Your task to perform on an android device: turn off wifi Image 0: 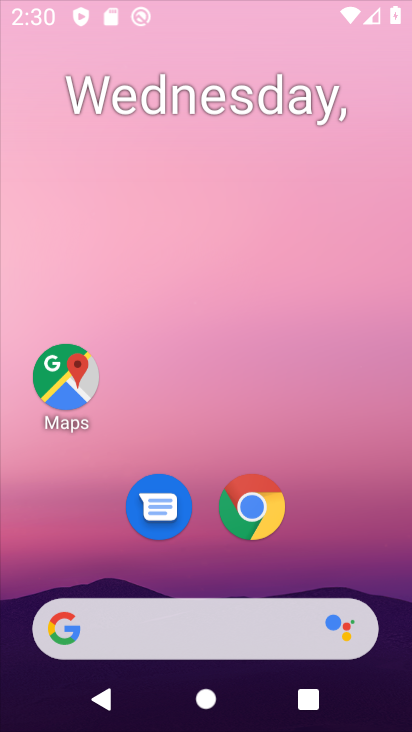
Step 0: drag from (305, 378) to (284, 70)
Your task to perform on an android device: turn off wifi Image 1: 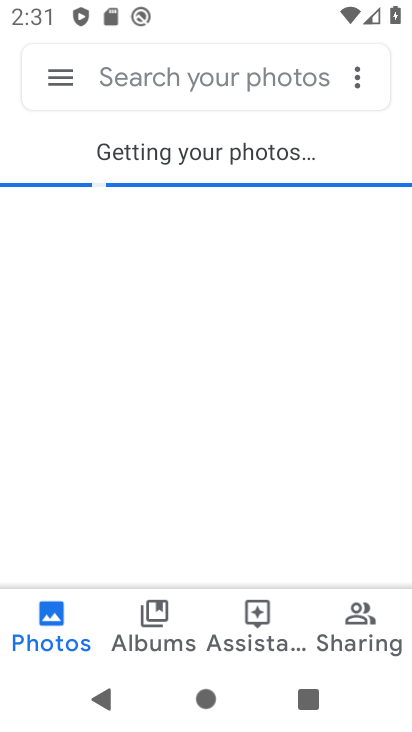
Step 1: press home button
Your task to perform on an android device: turn off wifi Image 2: 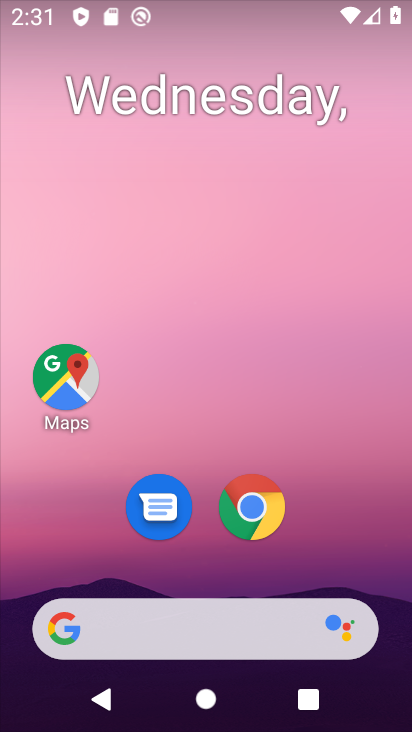
Step 2: drag from (196, 472) to (193, 89)
Your task to perform on an android device: turn off wifi Image 3: 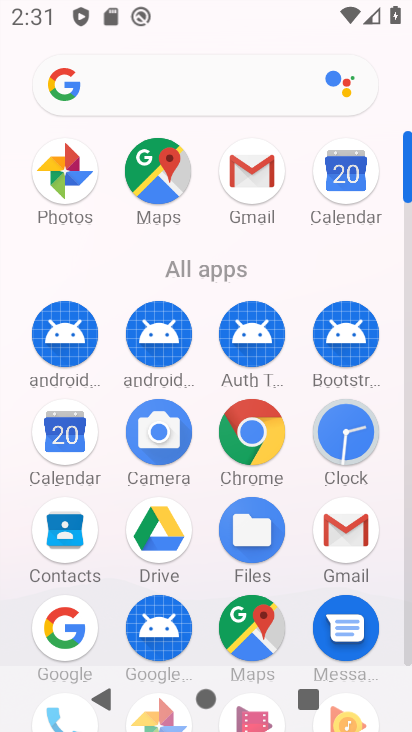
Step 3: drag from (193, 578) to (184, 202)
Your task to perform on an android device: turn off wifi Image 4: 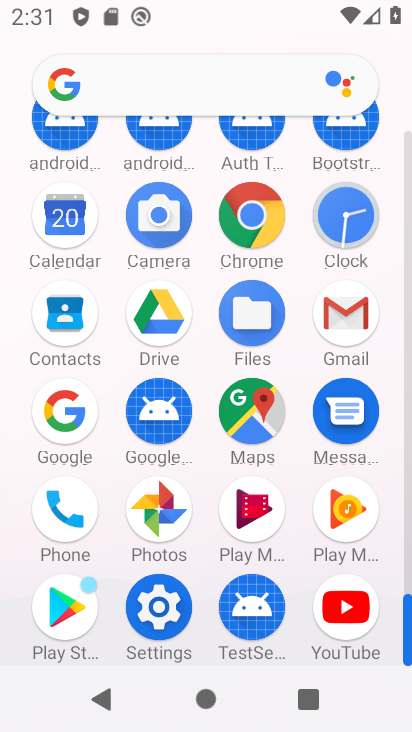
Step 4: click (164, 599)
Your task to perform on an android device: turn off wifi Image 5: 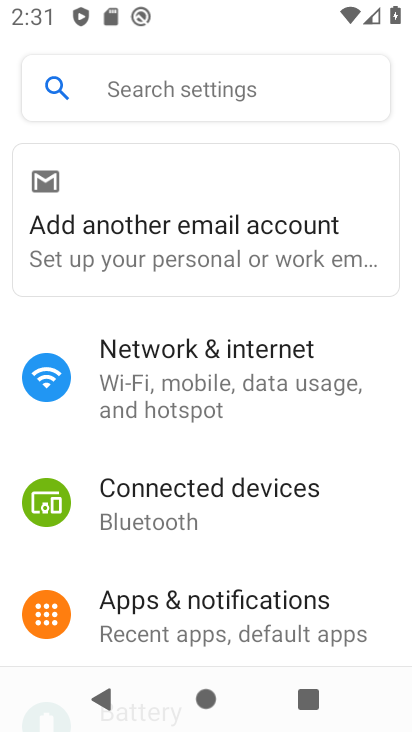
Step 5: click (264, 390)
Your task to perform on an android device: turn off wifi Image 6: 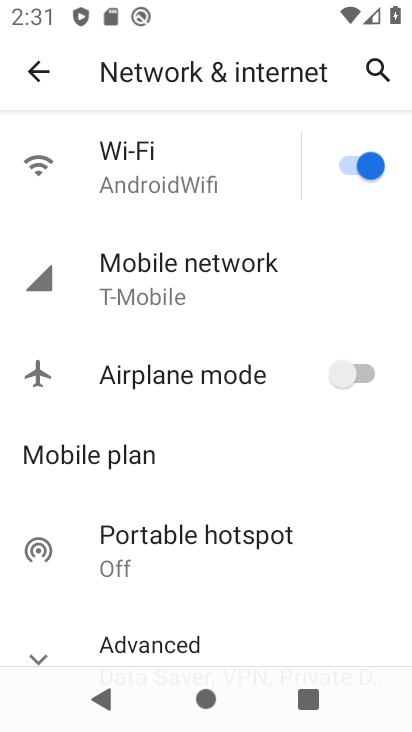
Step 6: click (346, 166)
Your task to perform on an android device: turn off wifi Image 7: 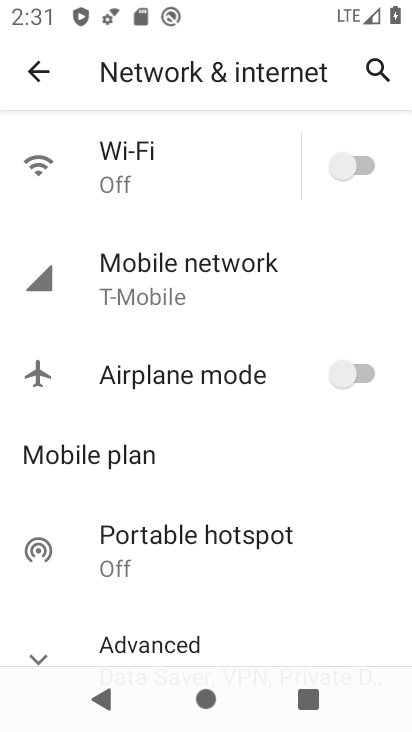
Step 7: task complete